Your task to perform on an android device: What's the news about the US president? Image 0: 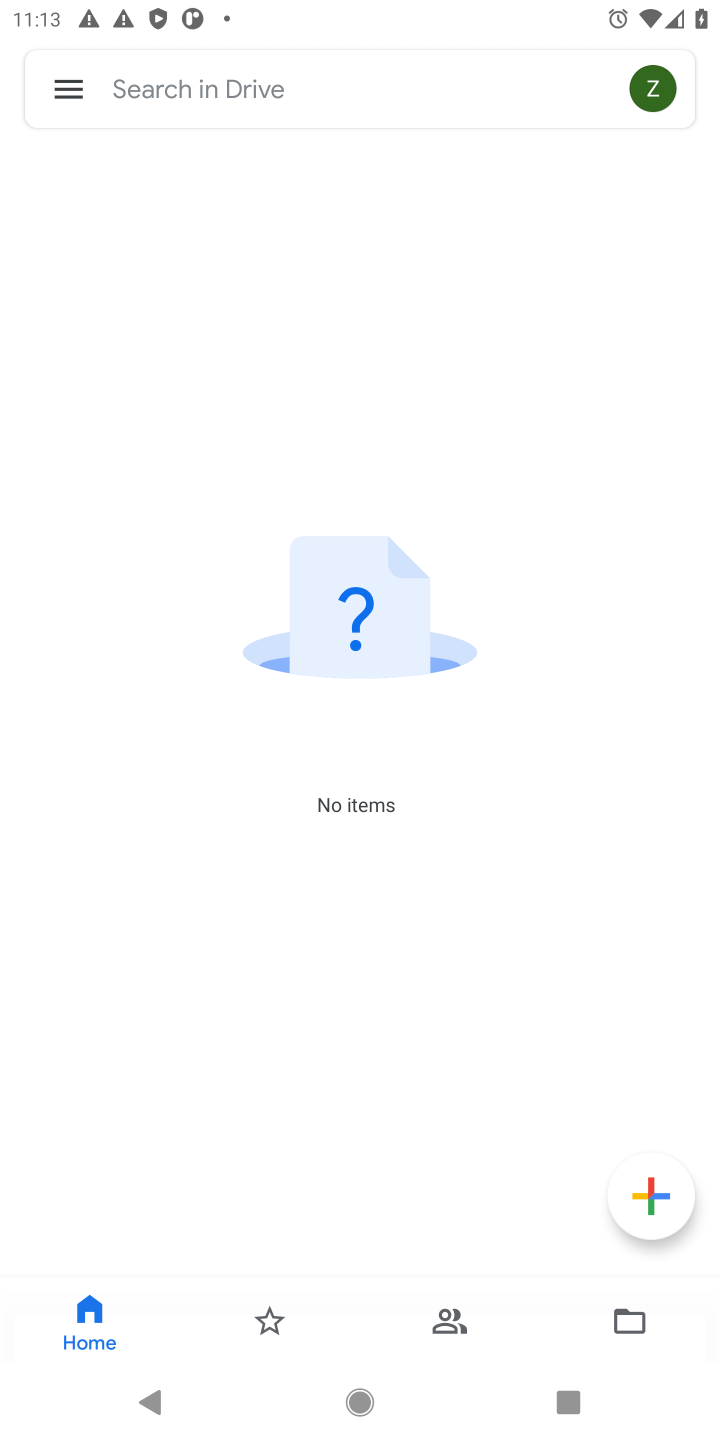
Step 0: press home button
Your task to perform on an android device: What's the news about the US president? Image 1: 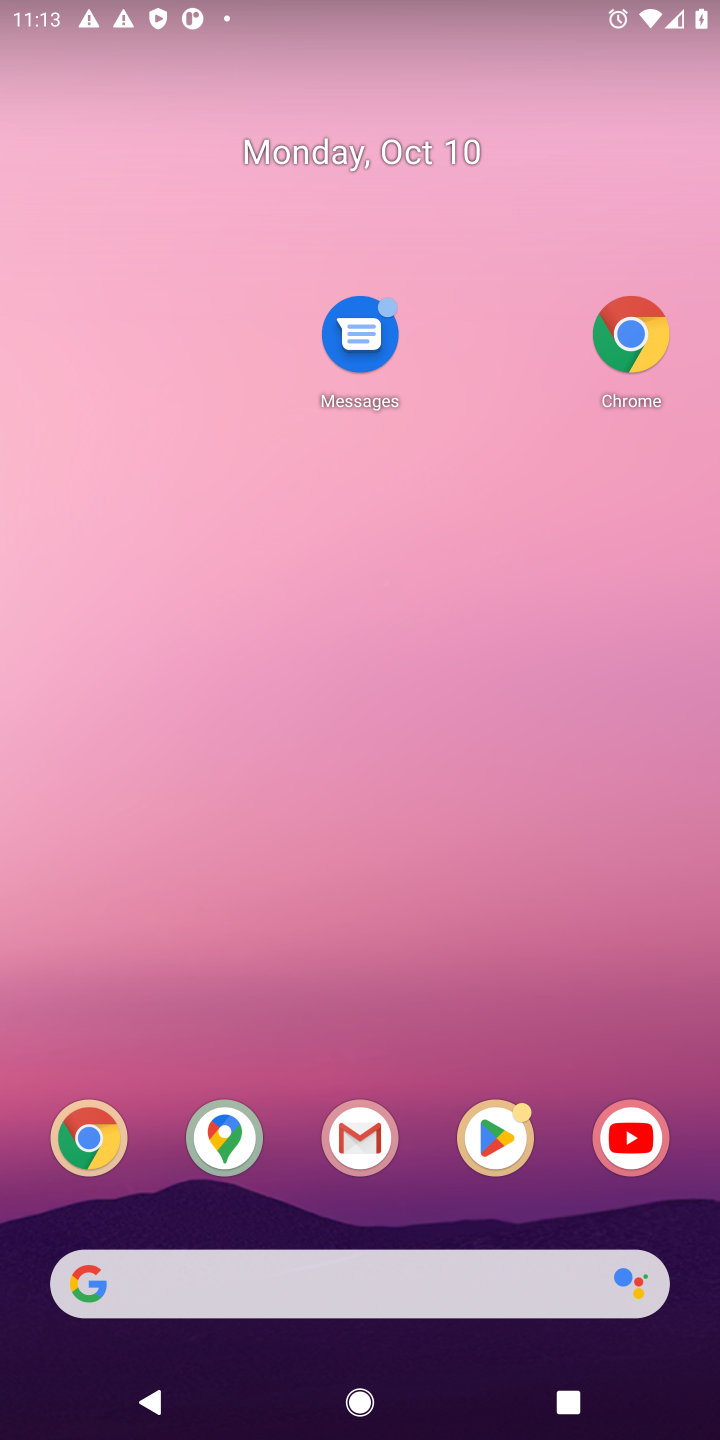
Step 1: click (629, 359)
Your task to perform on an android device: What's the news about the US president? Image 2: 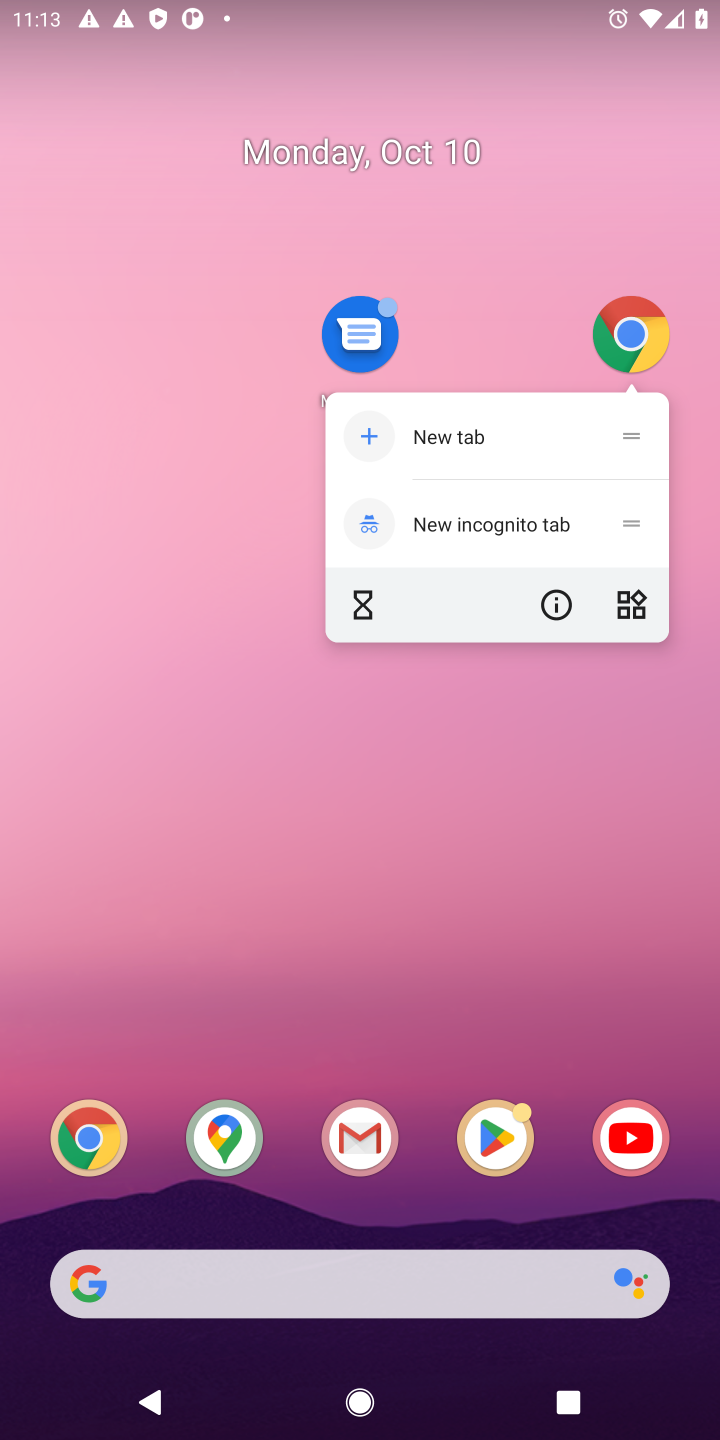
Step 2: click (645, 337)
Your task to perform on an android device: What's the news about the US president? Image 3: 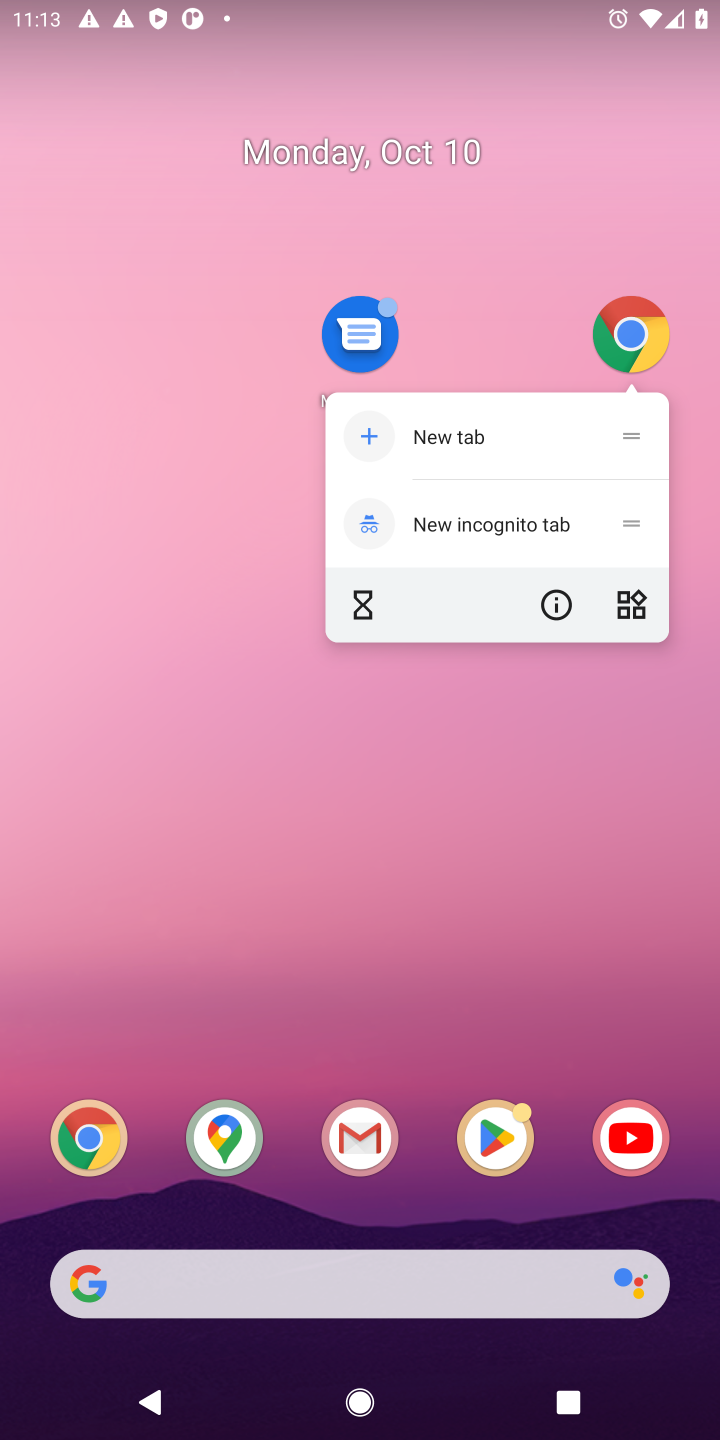
Step 3: click (648, 348)
Your task to perform on an android device: What's the news about the US president? Image 4: 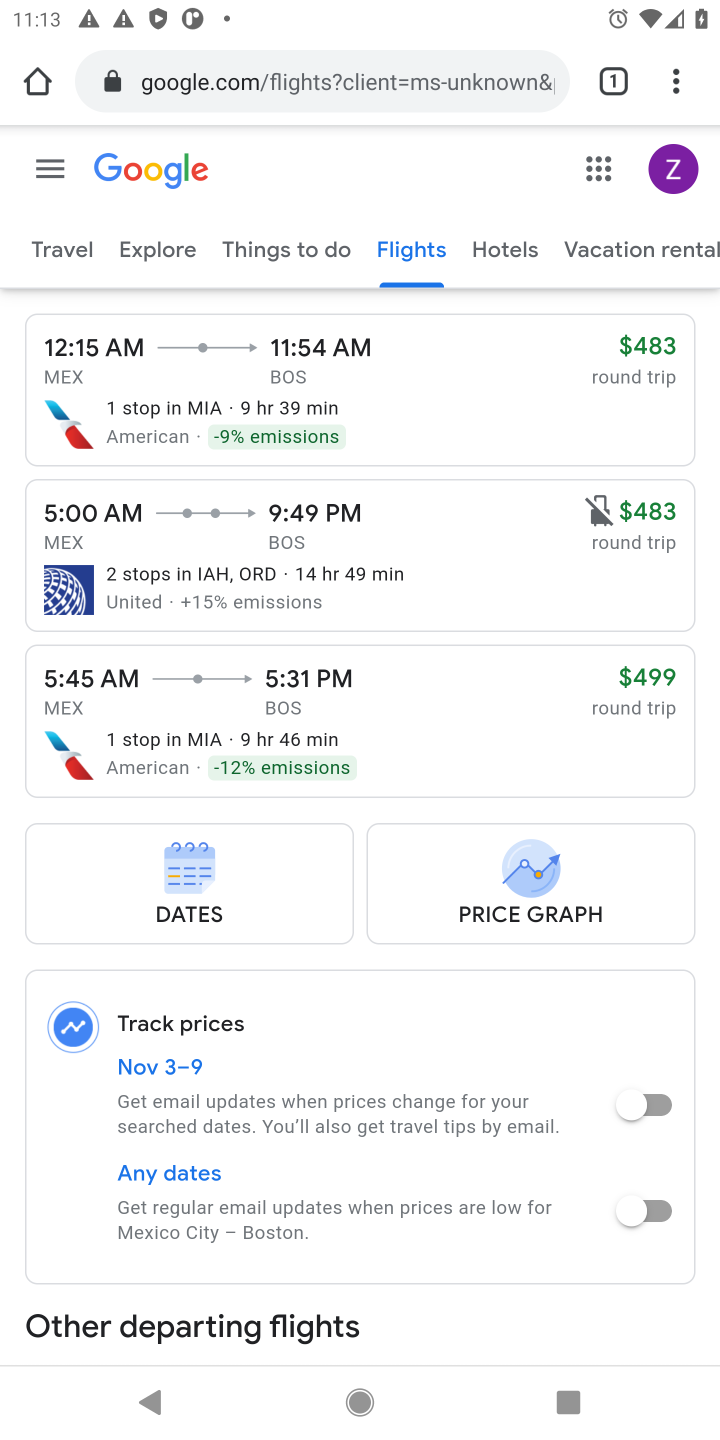
Step 4: click (279, 88)
Your task to perform on an android device: What's the news about the US president? Image 5: 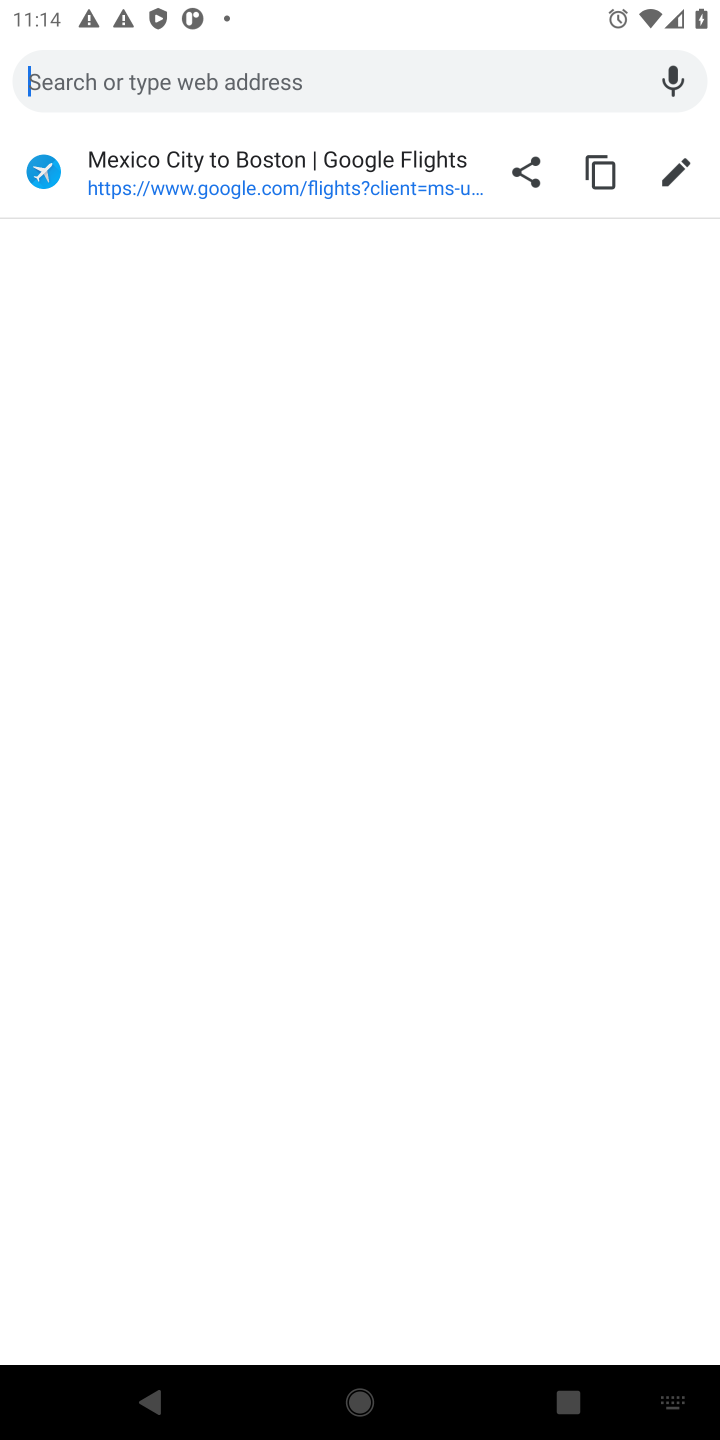
Step 5: type "news about US president"
Your task to perform on an android device: What's the news about the US president? Image 6: 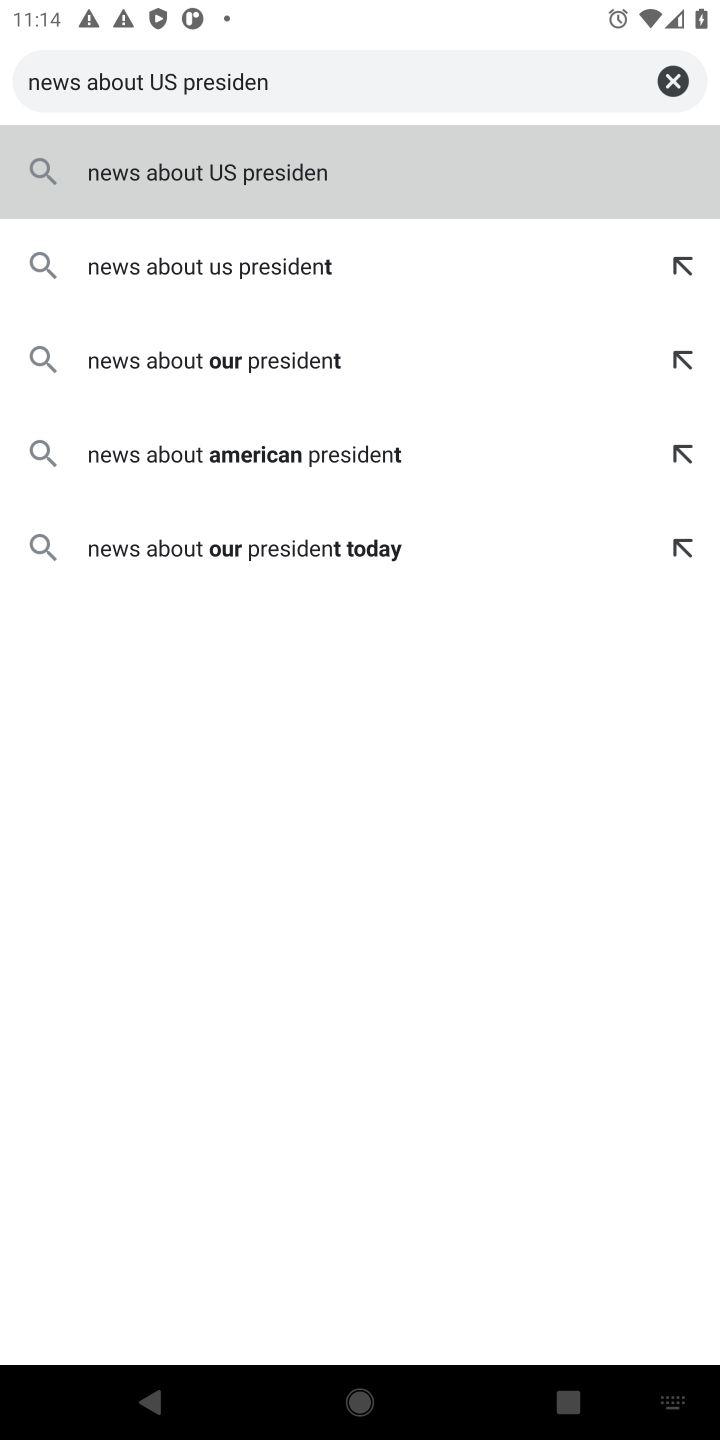
Step 6: type "t"
Your task to perform on an android device: What's the news about the US president? Image 7: 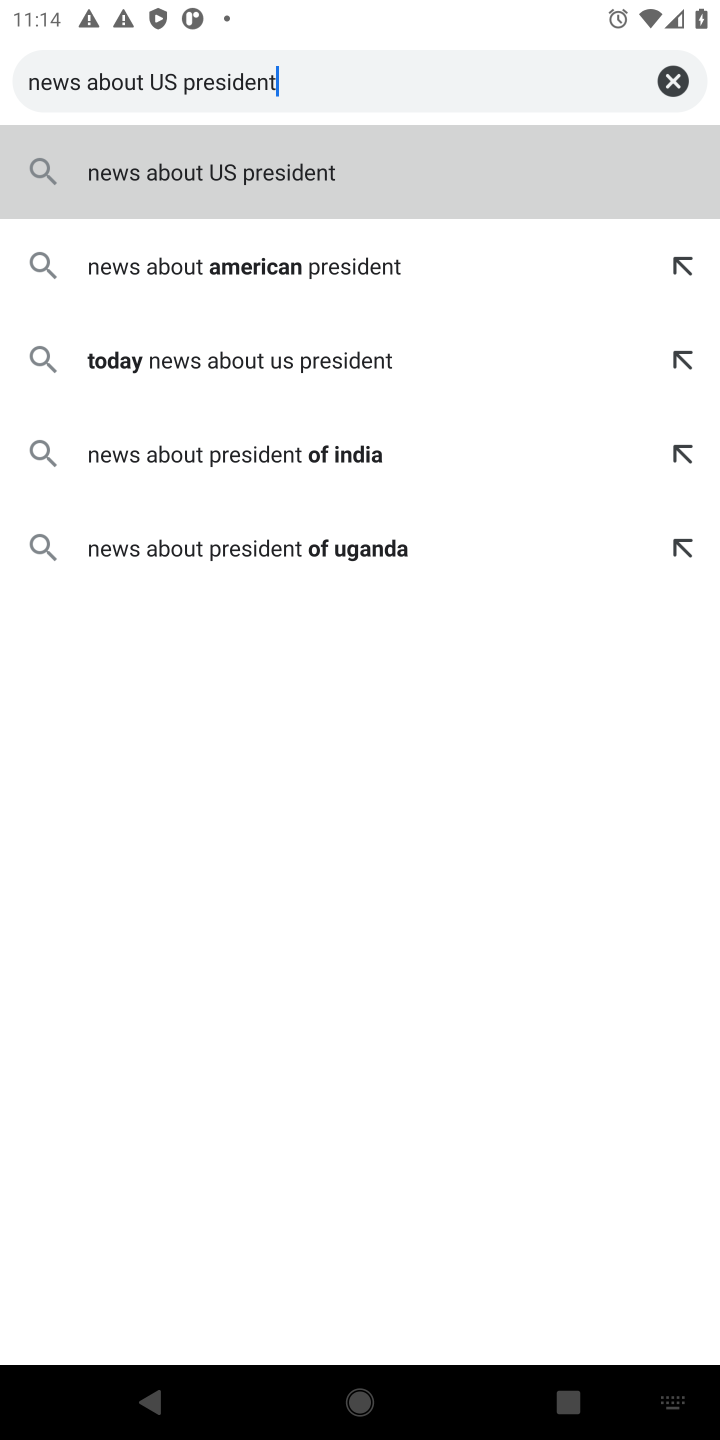
Step 7: press enter
Your task to perform on an android device: What's the news about the US president? Image 8: 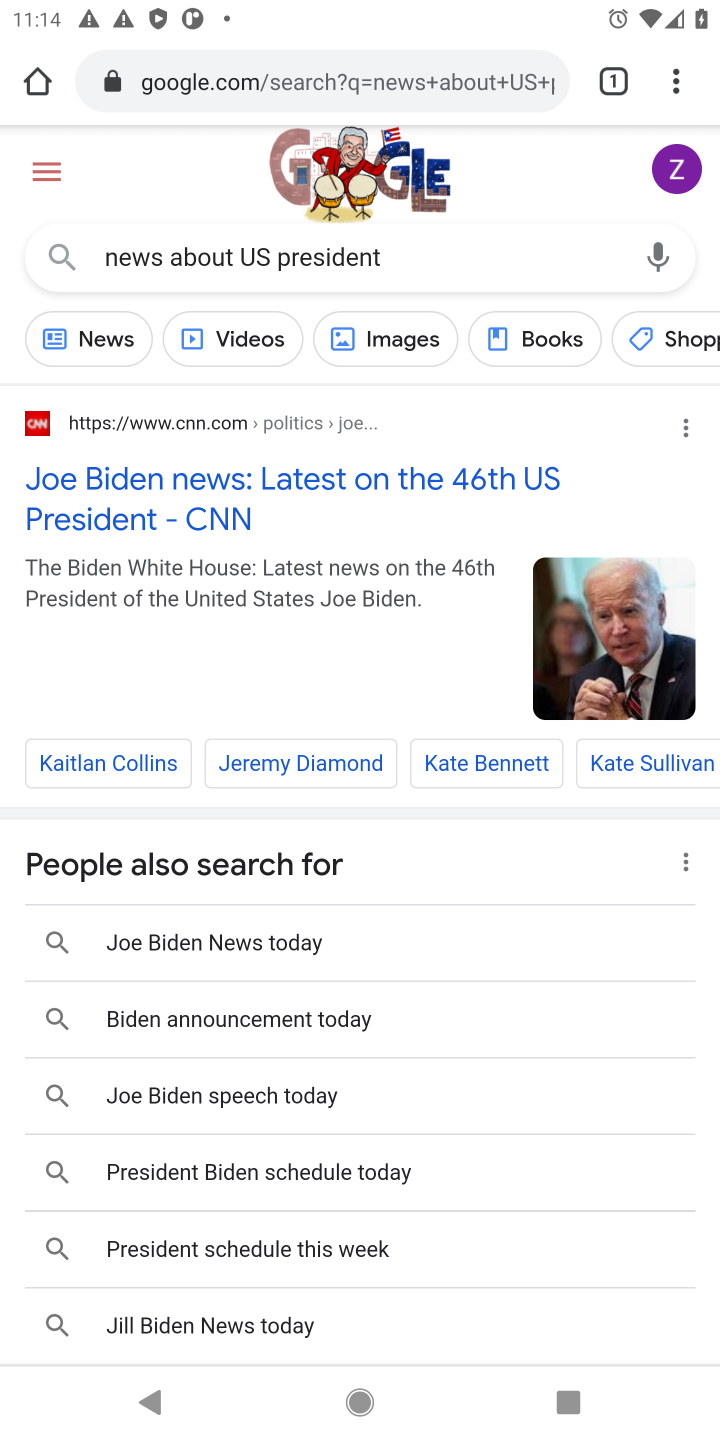
Step 8: click (100, 345)
Your task to perform on an android device: What's the news about the US president? Image 9: 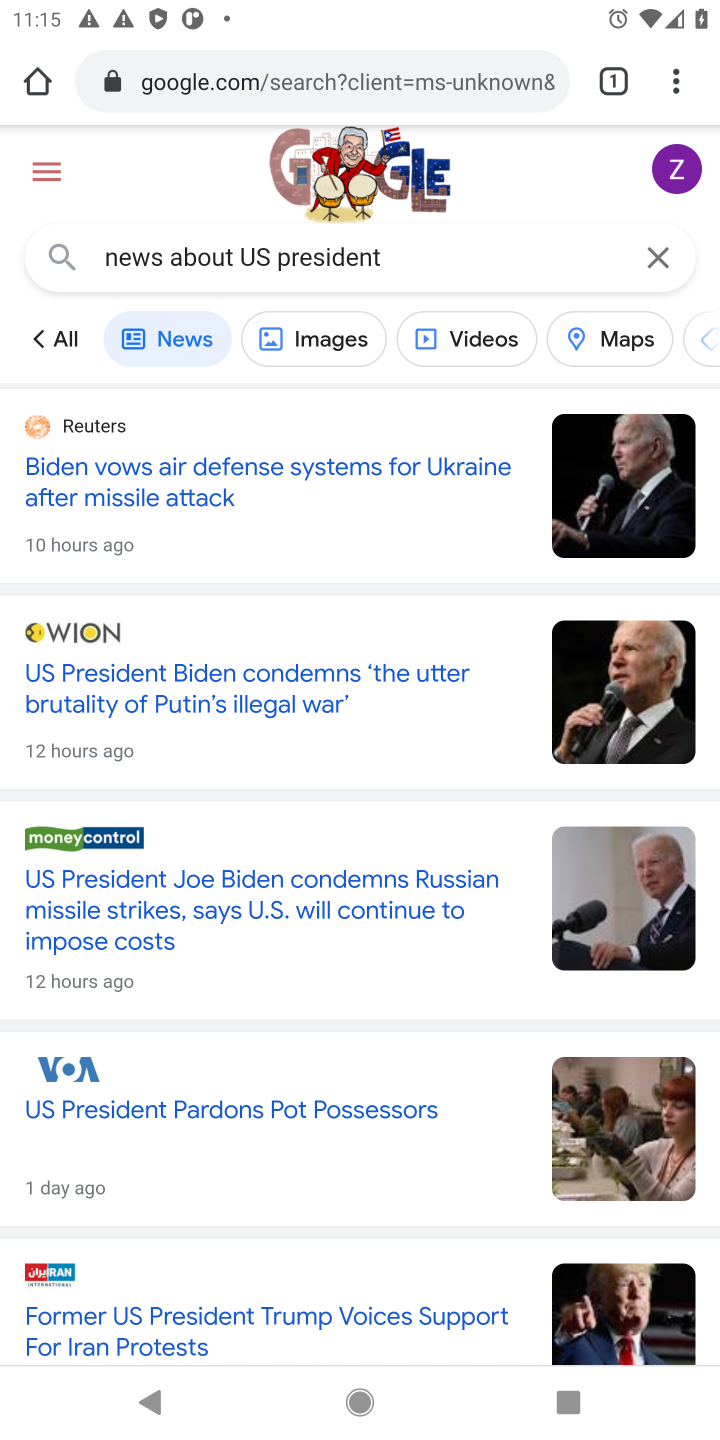
Step 9: task complete